Your task to perform on an android device: open app "Adobe Express: Graphic Design" Image 0: 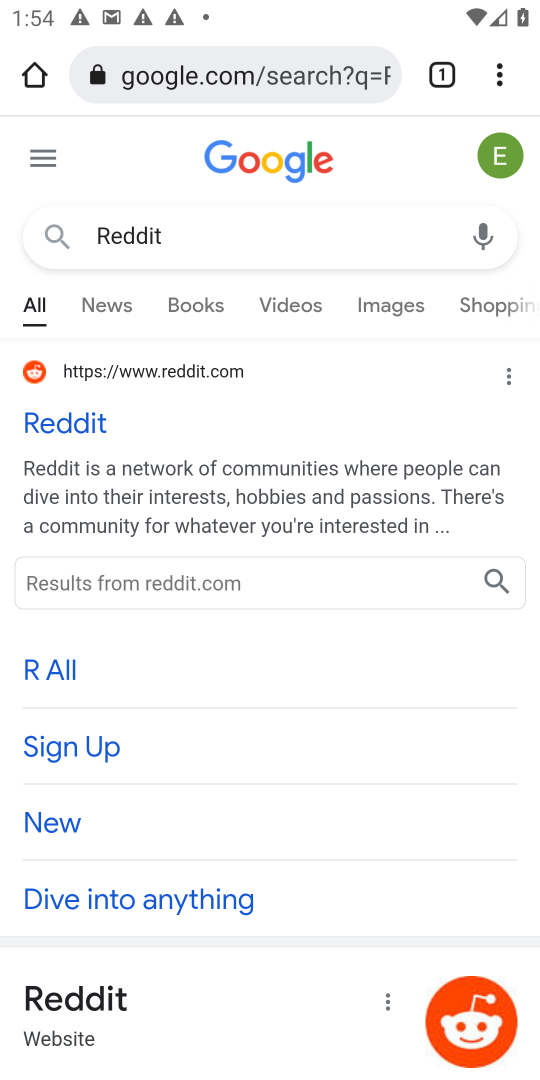
Step 0: press home button
Your task to perform on an android device: open app "Adobe Express: Graphic Design" Image 1: 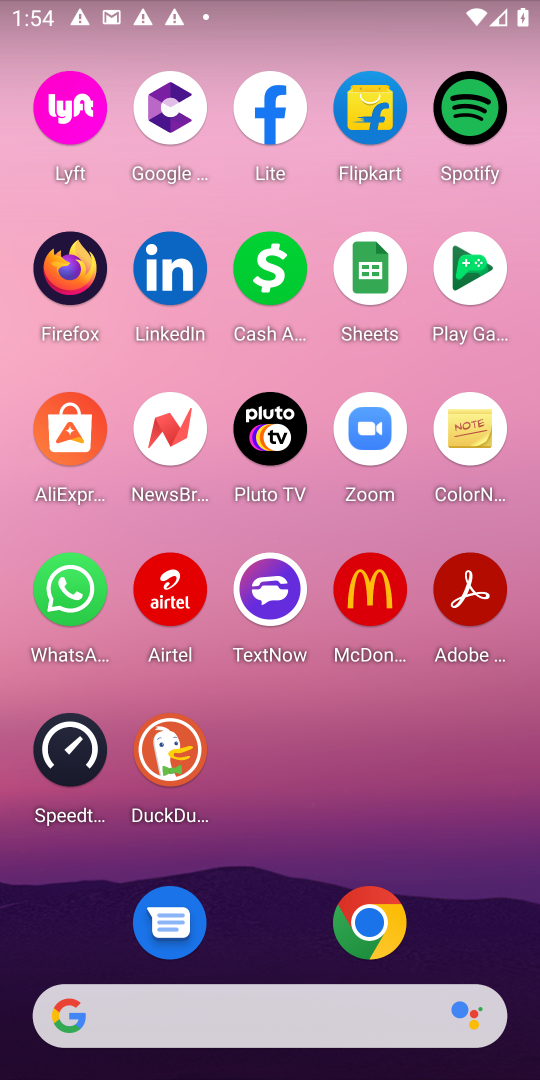
Step 1: drag from (251, 928) to (232, 304)
Your task to perform on an android device: open app "Adobe Express: Graphic Design" Image 2: 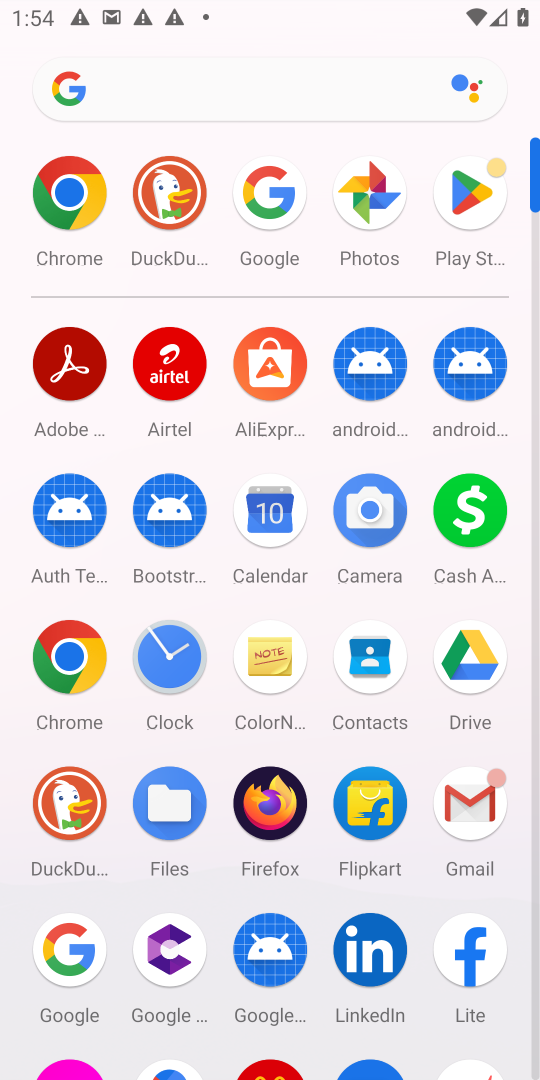
Step 2: click (468, 196)
Your task to perform on an android device: open app "Adobe Express: Graphic Design" Image 3: 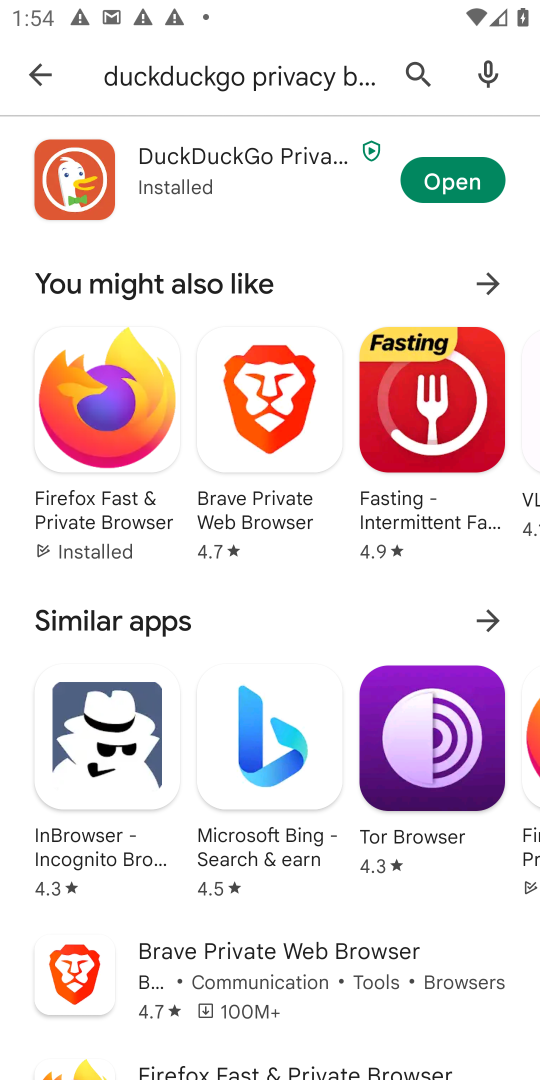
Step 3: click (29, 74)
Your task to perform on an android device: open app "Adobe Express: Graphic Design" Image 4: 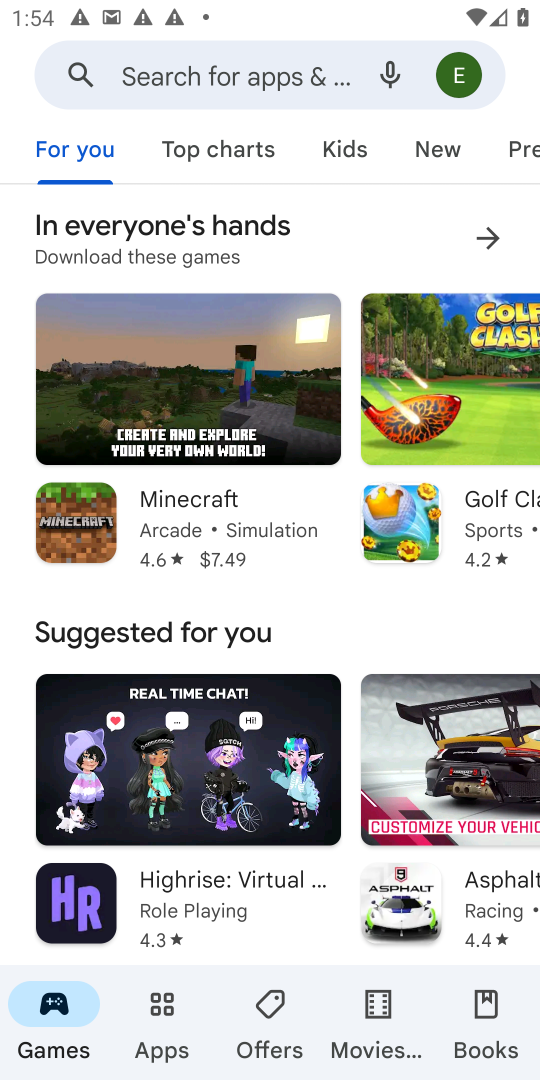
Step 4: click (161, 68)
Your task to perform on an android device: open app "Adobe Express: Graphic Design" Image 5: 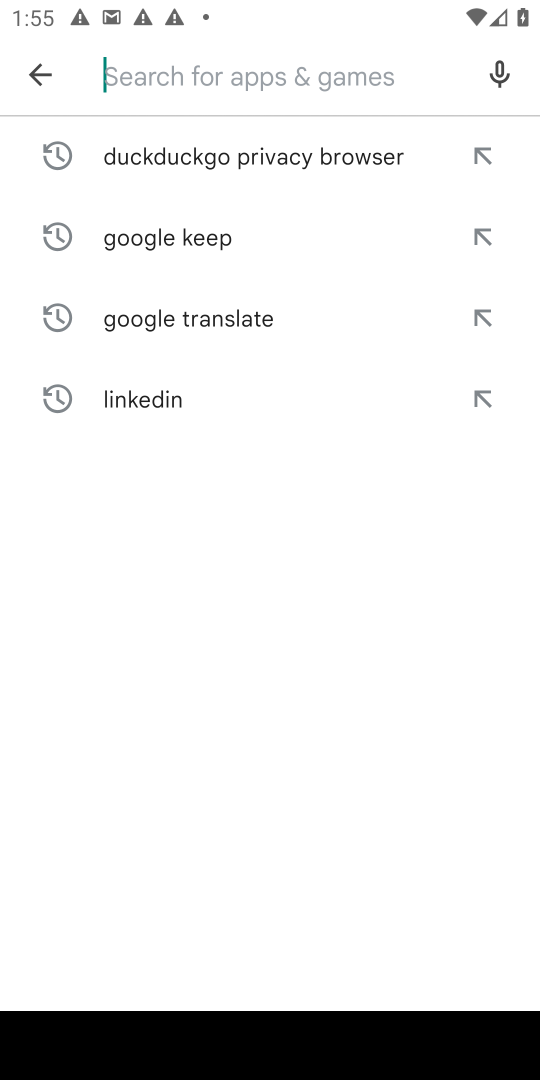
Step 5: type "Adobe Express: Graphic Design"
Your task to perform on an android device: open app "Adobe Express: Graphic Design" Image 6: 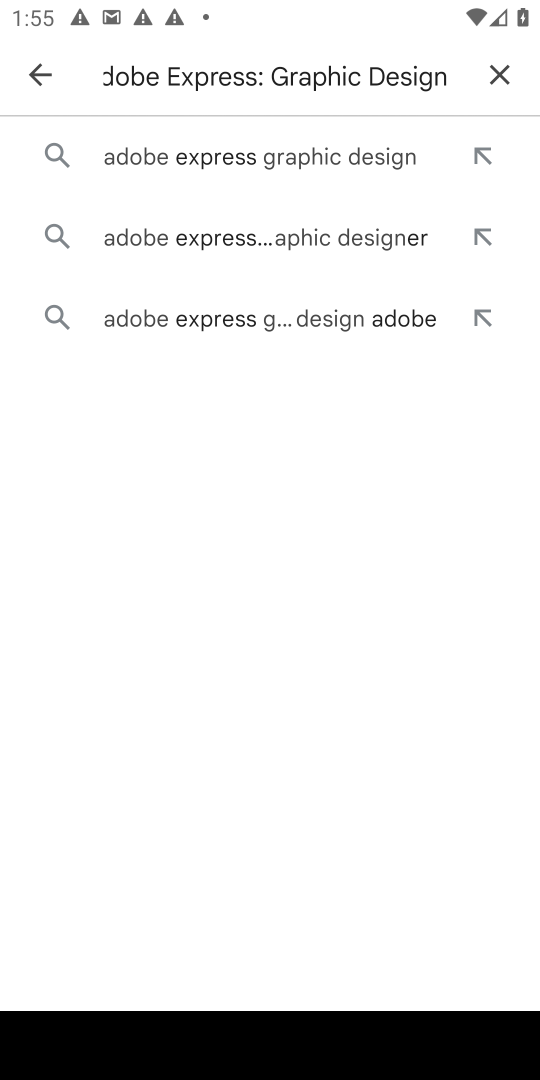
Step 6: click (196, 153)
Your task to perform on an android device: open app "Adobe Express: Graphic Design" Image 7: 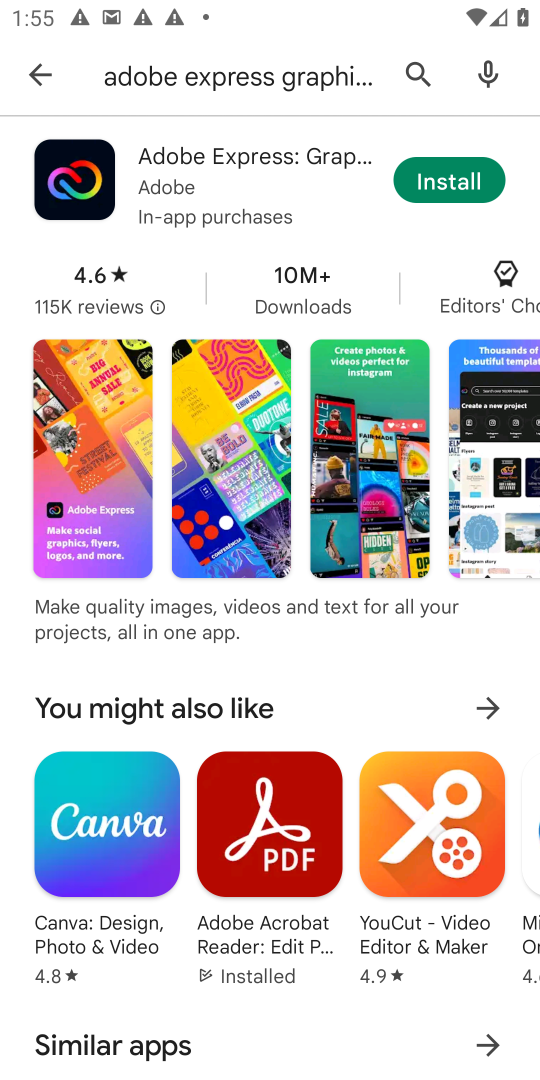
Step 7: click (445, 193)
Your task to perform on an android device: open app "Adobe Express: Graphic Design" Image 8: 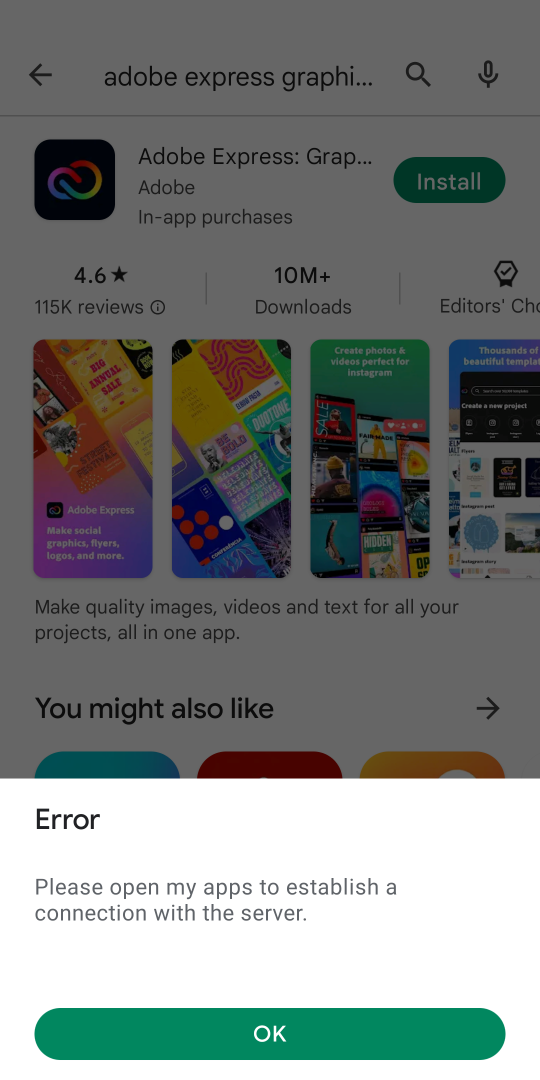
Step 8: click (273, 1031)
Your task to perform on an android device: open app "Adobe Express: Graphic Design" Image 9: 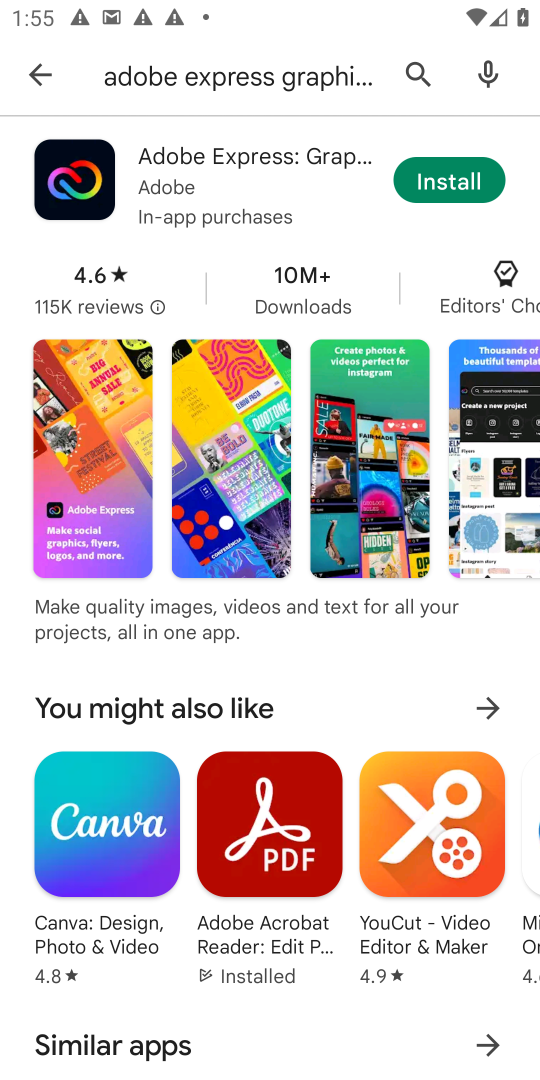
Step 9: task complete